Your task to perform on an android device: What's the weather? Image 0: 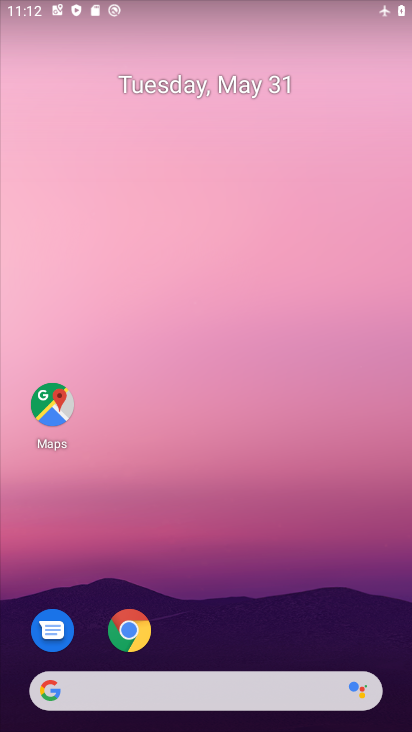
Step 0: drag from (209, 653) to (212, 205)
Your task to perform on an android device: What's the weather? Image 1: 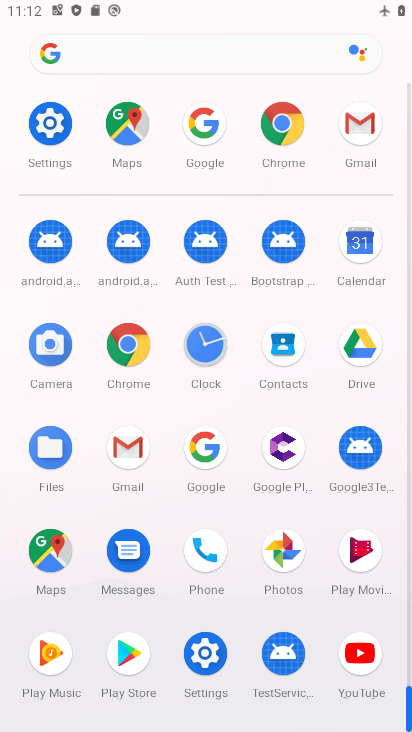
Step 1: click (212, 455)
Your task to perform on an android device: What's the weather? Image 2: 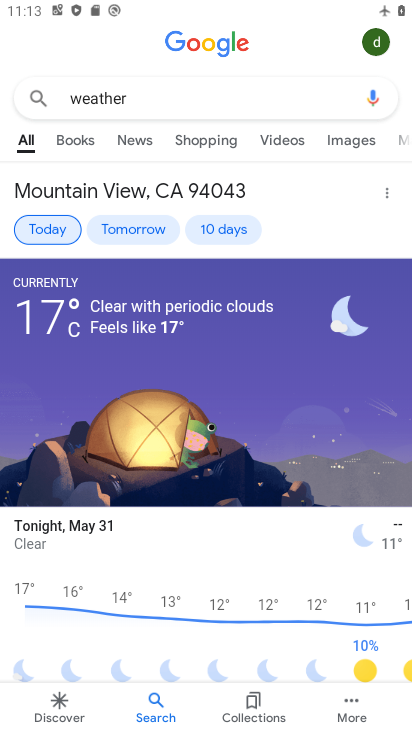
Step 2: task complete